Your task to perform on an android device: Search for the new ikea dresser Image 0: 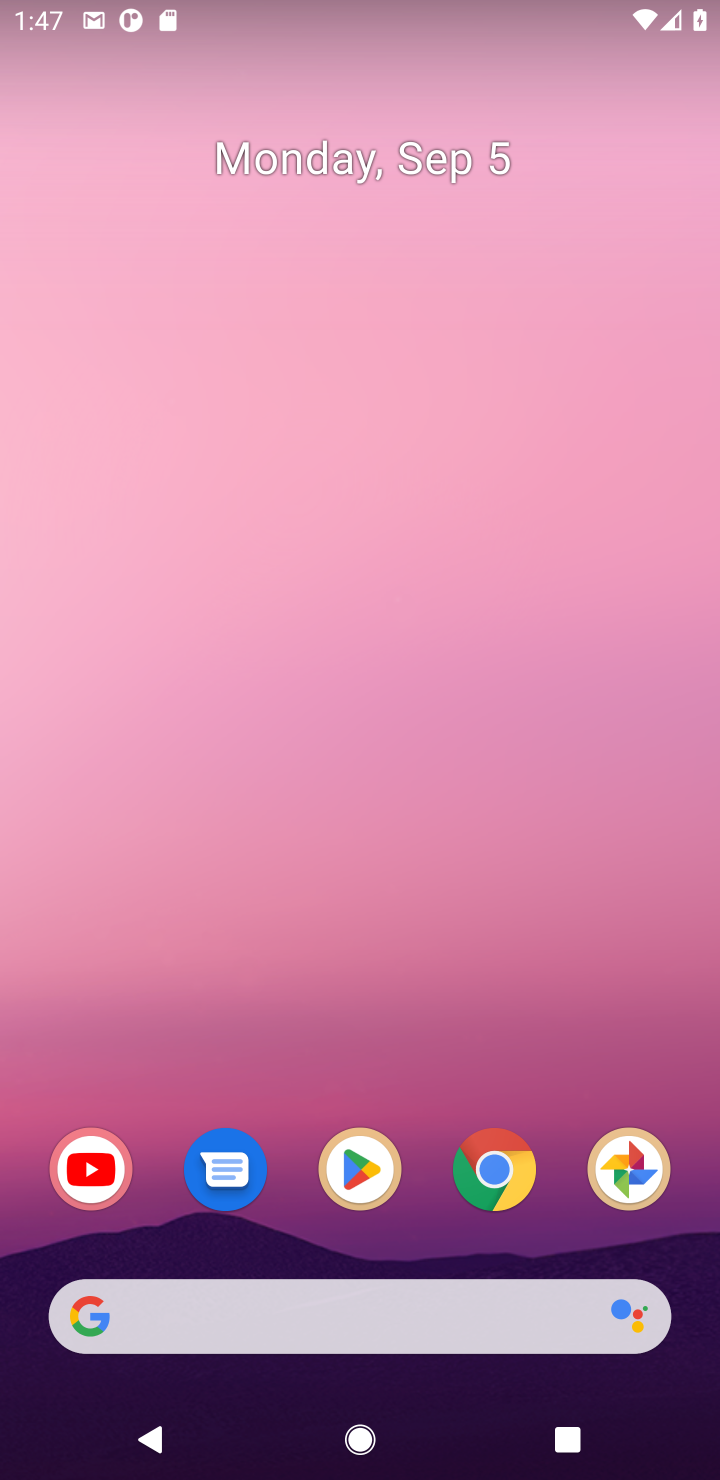
Step 0: click (607, 1188)
Your task to perform on an android device: Search for the new ikea dresser Image 1: 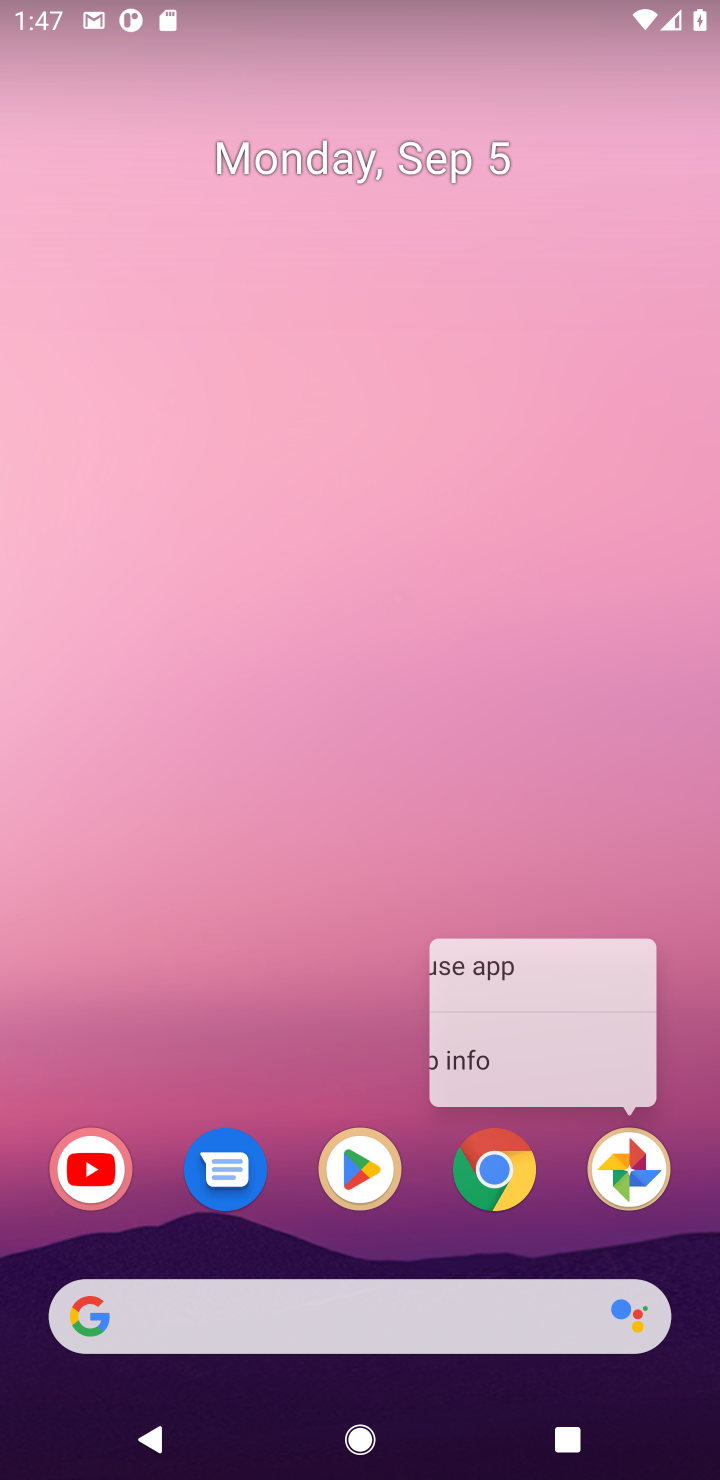
Step 1: task complete